Your task to perform on an android device: all mails in gmail Image 0: 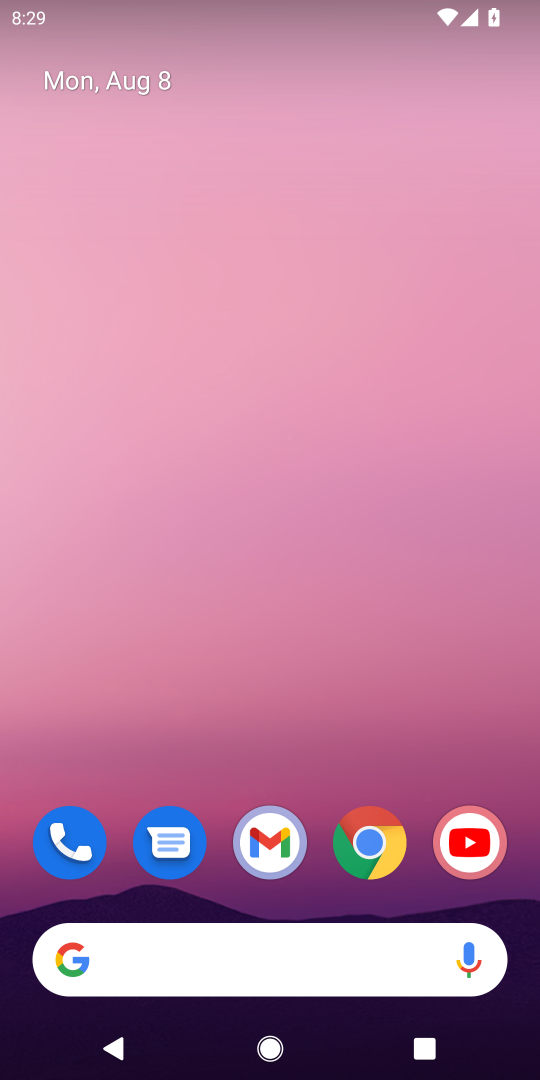
Step 0: click (276, 843)
Your task to perform on an android device: all mails in gmail Image 1: 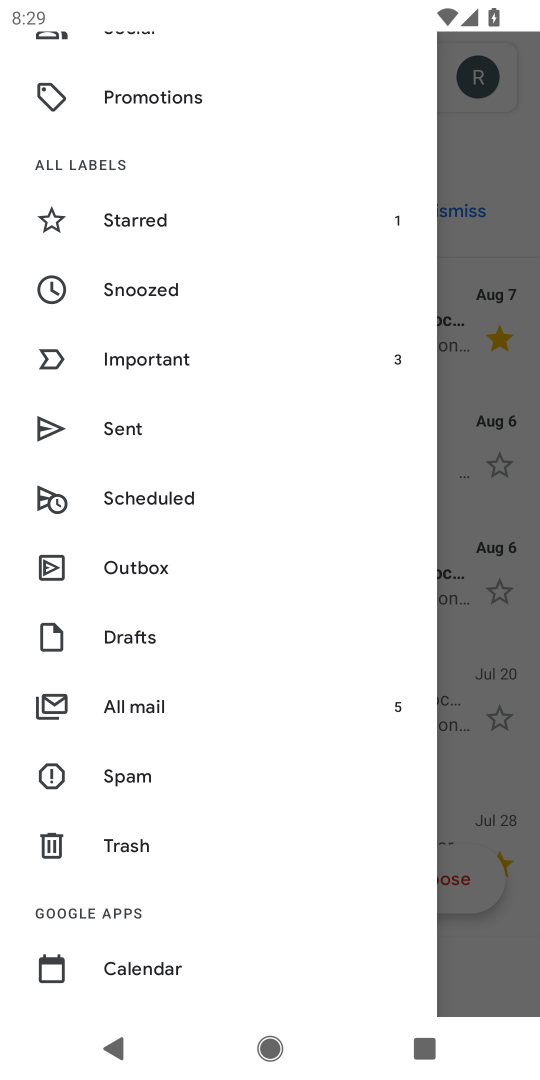
Step 1: click (161, 706)
Your task to perform on an android device: all mails in gmail Image 2: 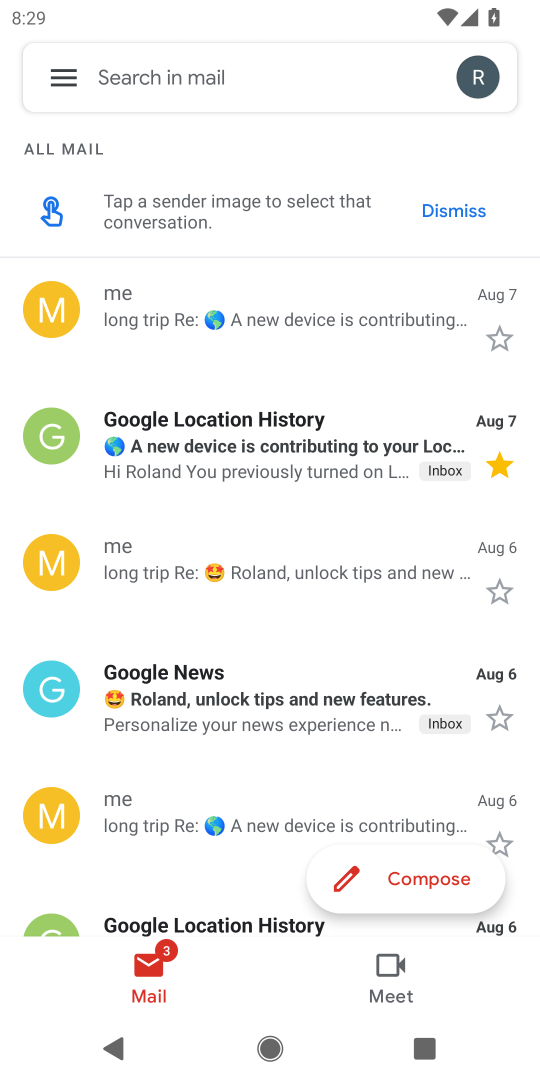
Step 2: task complete